Your task to perform on an android device: turn pop-ups off in chrome Image 0: 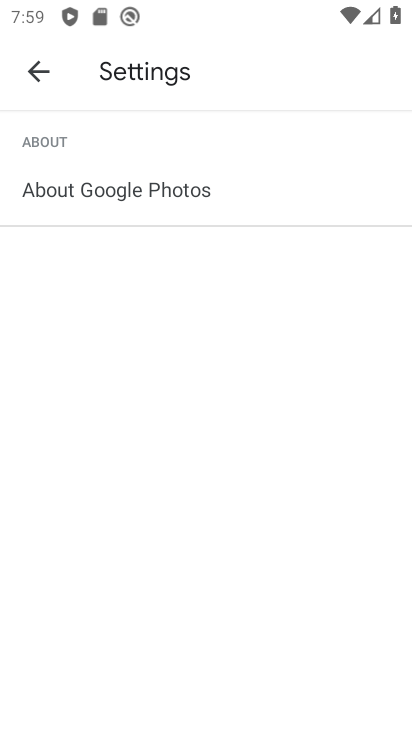
Step 0: press home button
Your task to perform on an android device: turn pop-ups off in chrome Image 1: 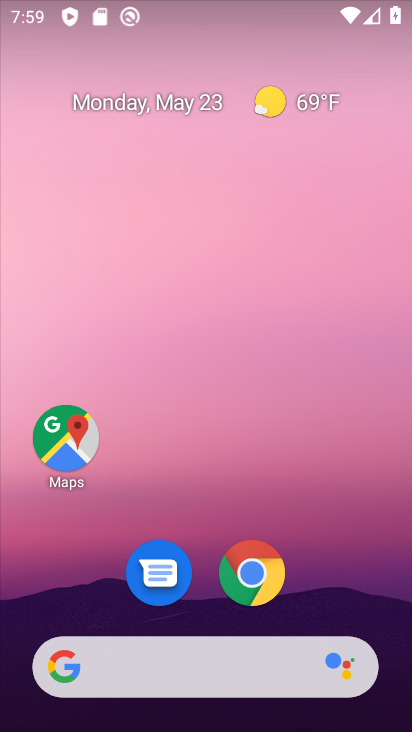
Step 1: click (251, 573)
Your task to perform on an android device: turn pop-ups off in chrome Image 2: 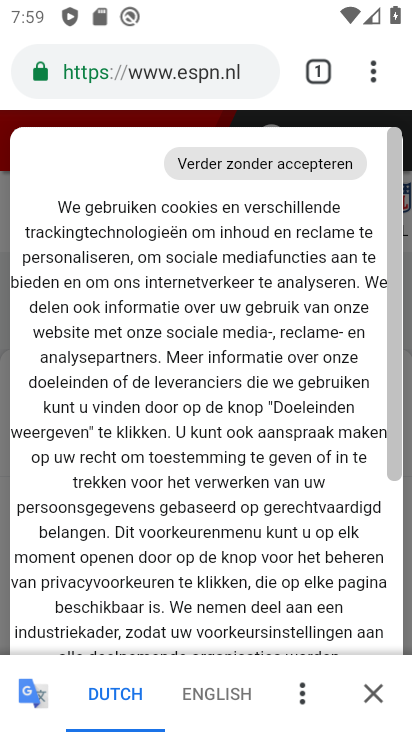
Step 2: click (369, 74)
Your task to perform on an android device: turn pop-ups off in chrome Image 3: 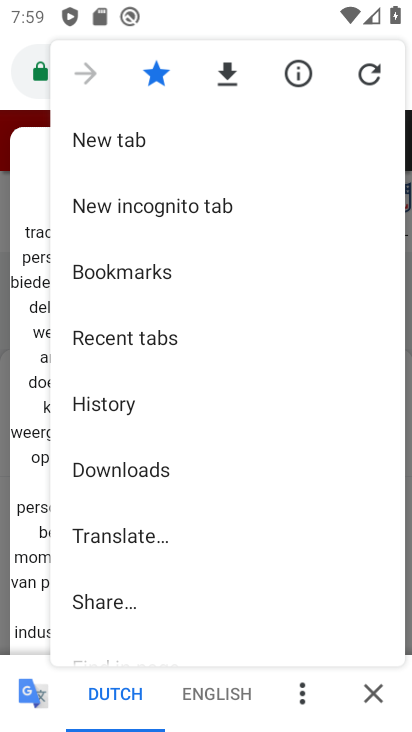
Step 3: drag from (202, 640) to (225, 293)
Your task to perform on an android device: turn pop-ups off in chrome Image 4: 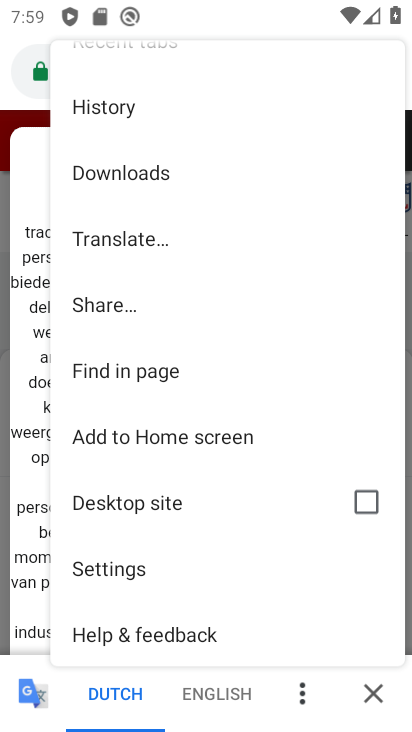
Step 4: click (131, 594)
Your task to perform on an android device: turn pop-ups off in chrome Image 5: 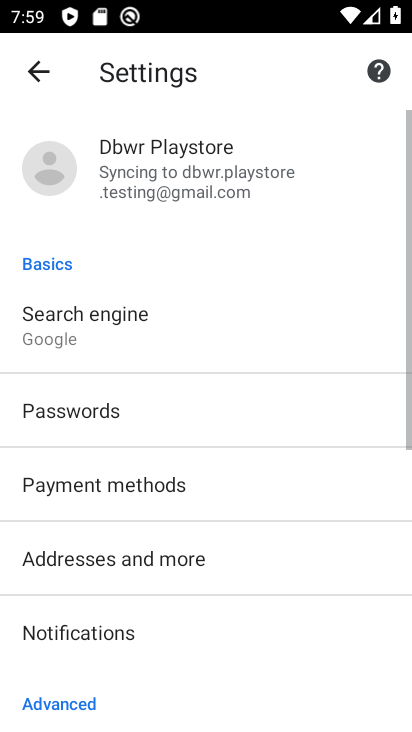
Step 5: drag from (183, 595) to (204, 160)
Your task to perform on an android device: turn pop-ups off in chrome Image 6: 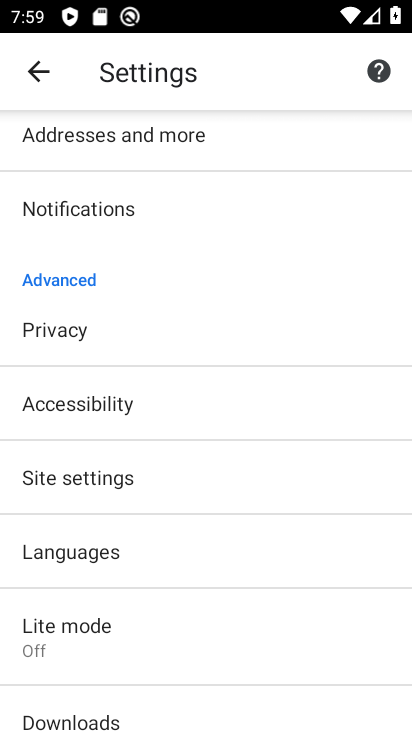
Step 6: click (55, 483)
Your task to perform on an android device: turn pop-ups off in chrome Image 7: 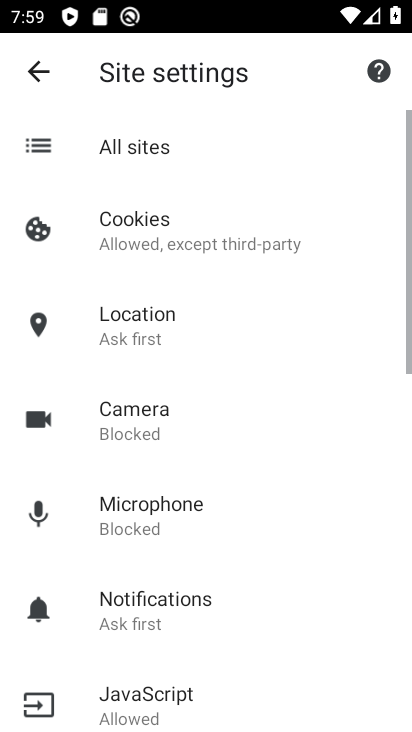
Step 7: drag from (178, 653) to (162, 190)
Your task to perform on an android device: turn pop-ups off in chrome Image 8: 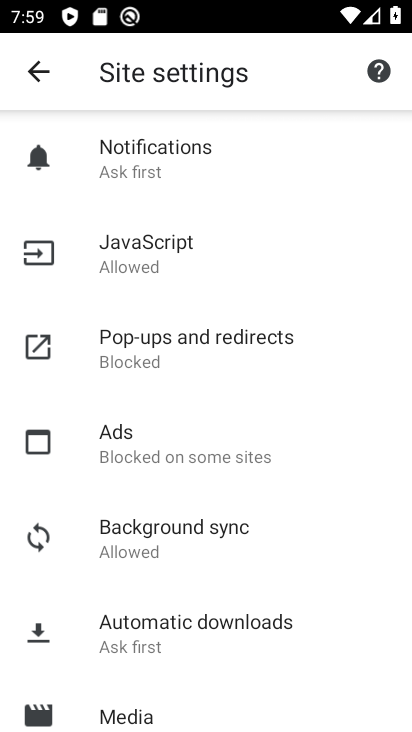
Step 8: click (156, 316)
Your task to perform on an android device: turn pop-ups off in chrome Image 9: 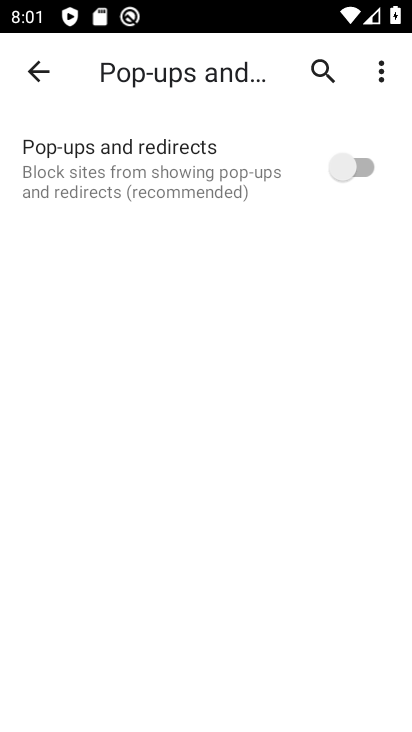
Step 9: task complete